Your task to perform on an android device: Open the Play Movies app and select the watchlist tab. Image 0: 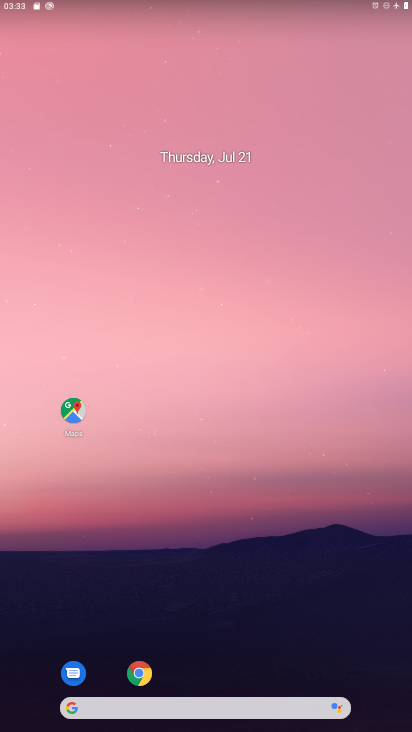
Step 0: drag from (202, 661) to (205, 341)
Your task to perform on an android device: Open the Play Movies app and select the watchlist tab. Image 1: 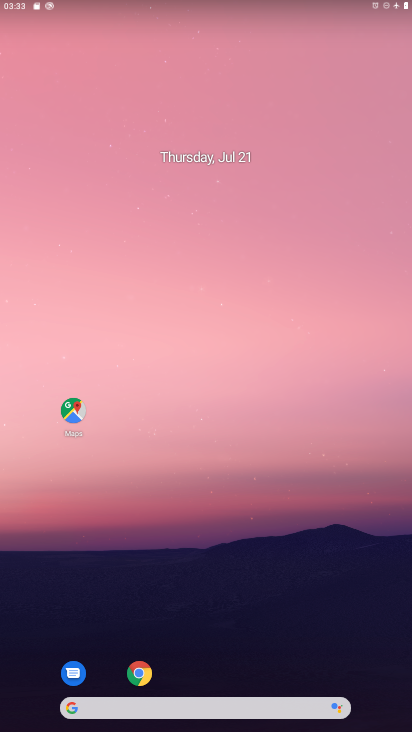
Step 1: drag from (268, 672) to (215, 241)
Your task to perform on an android device: Open the Play Movies app and select the watchlist tab. Image 2: 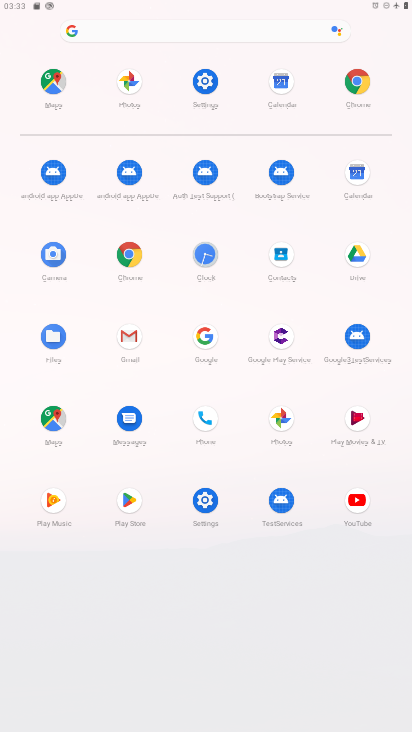
Step 2: click (349, 424)
Your task to perform on an android device: Open the Play Movies app and select the watchlist tab. Image 3: 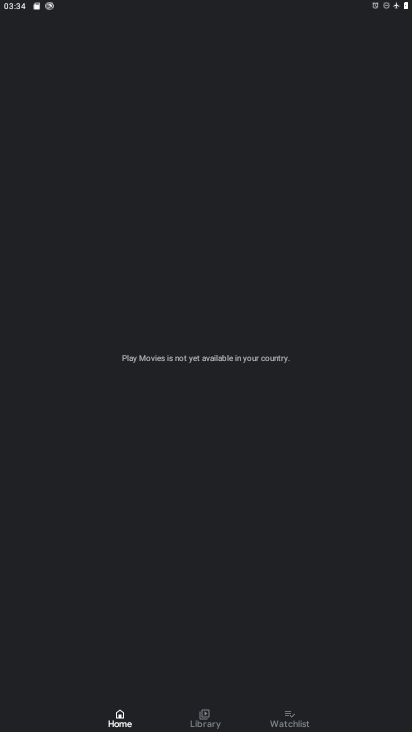
Step 3: click (306, 712)
Your task to perform on an android device: Open the Play Movies app and select the watchlist tab. Image 4: 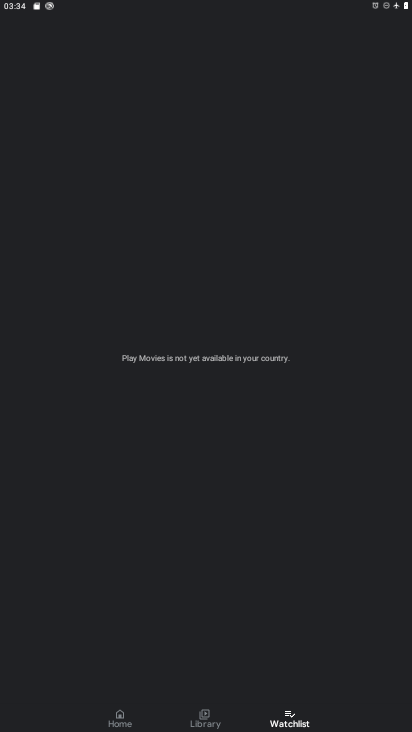
Step 4: task complete